Your task to perform on an android device: What's the weather going to be this weekend? Image 0: 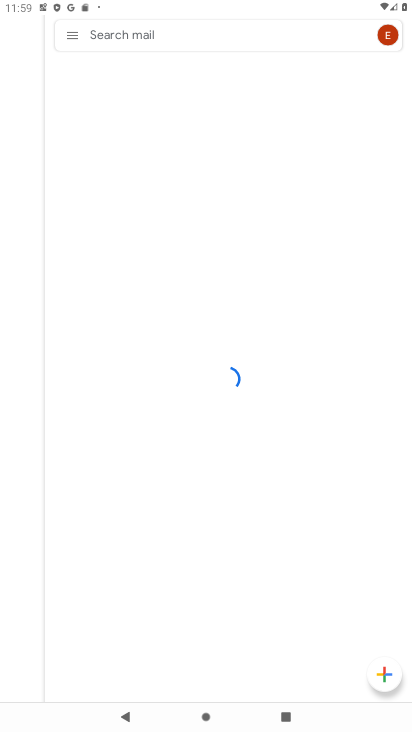
Step 0: press home button
Your task to perform on an android device: What's the weather going to be this weekend? Image 1: 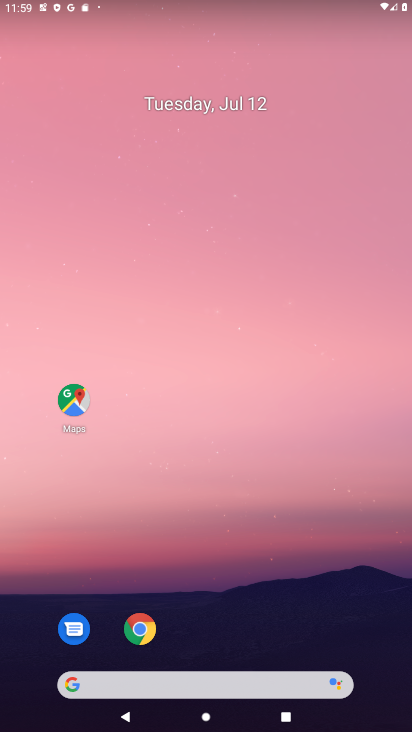
Step 1: drag from (338, 519) to (328, 178)
Your task to perform on an android device: What's the weather going to be this weekend? Image 2: 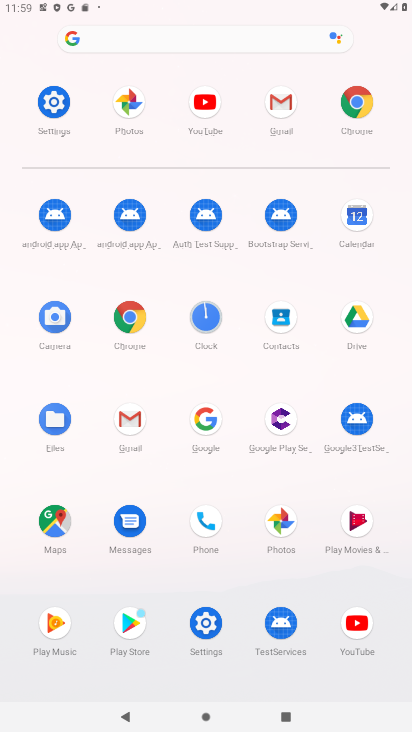
Step 2: click (129, 317)
Your task to perform on an android device: What's the weather going to be this weekend? Image 3: 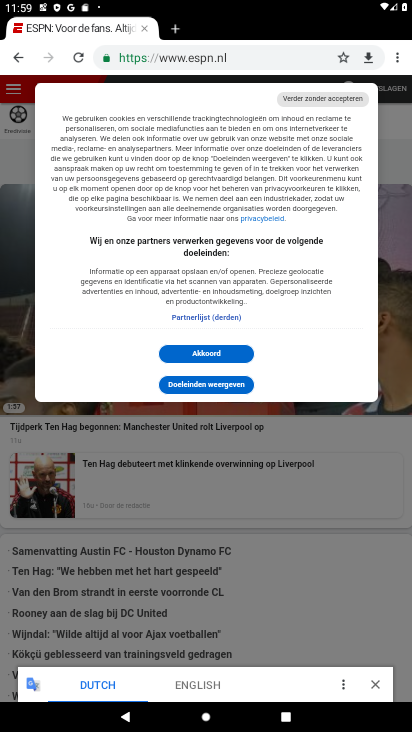
Step 3: click (183, 58)
Your task to perform on an android device: What's the weather going to be this weekend? Image 4: 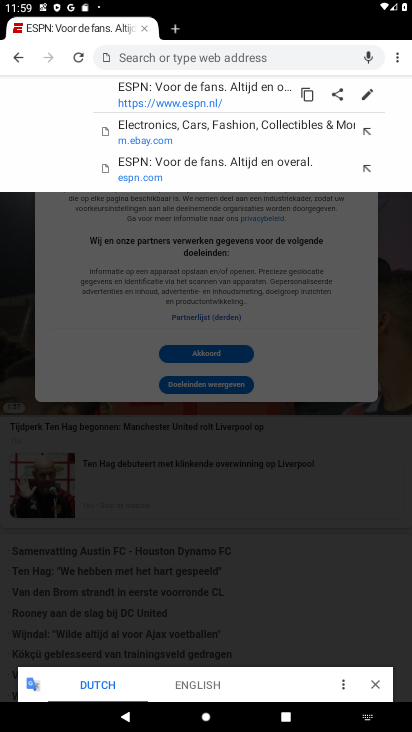
Step 4: type "weather"
Your task to perform on an android device: What's the weather going to be this weekend? Image 5: 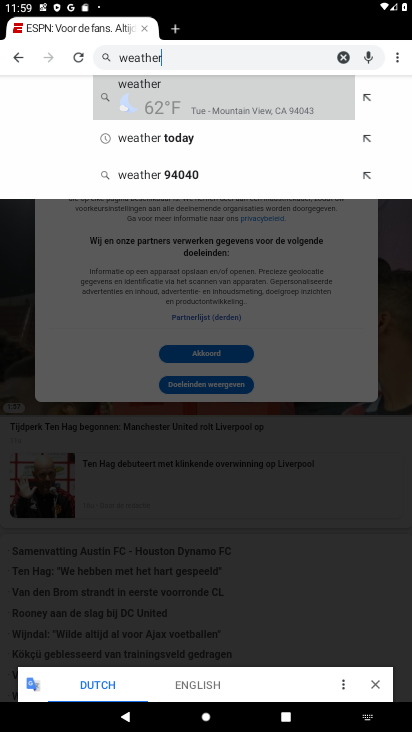
Step 5: click (137, 104)
Your task to perform on an android device: What's the weather going to be this weekend? Image 6: 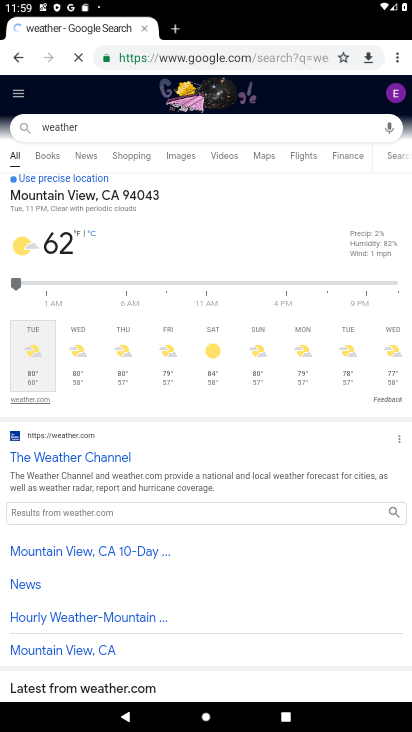
Step 6: click (207, 347)
Your task to perform on an android device: What's the weather going to be this weekend? Image 7: 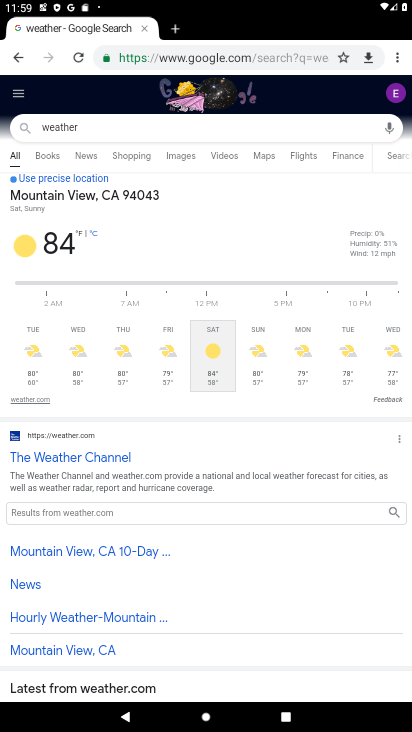
Step 7: task complete